Your task to perform on an android device: toggle show notifications on the lock screen Image 0: 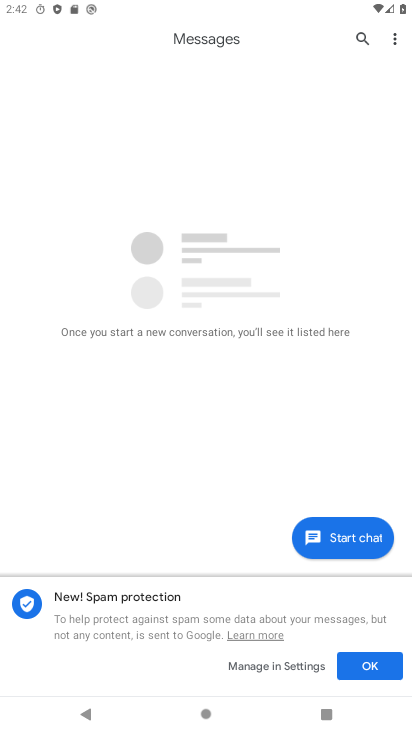
Step 0: press back button
Your task to perform on an android device: toggle show notifications on the lock screen Image 1: 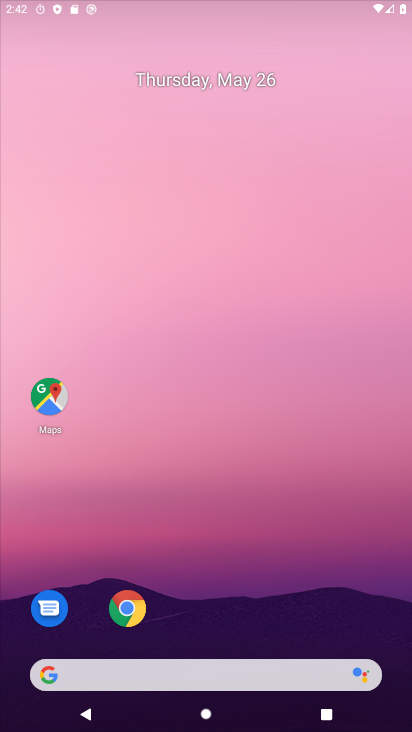
Step 1: drag from (246, 681) to (178, 16)
Your task to perform on an android device: toggle show notifications on the lock screen Image 2: 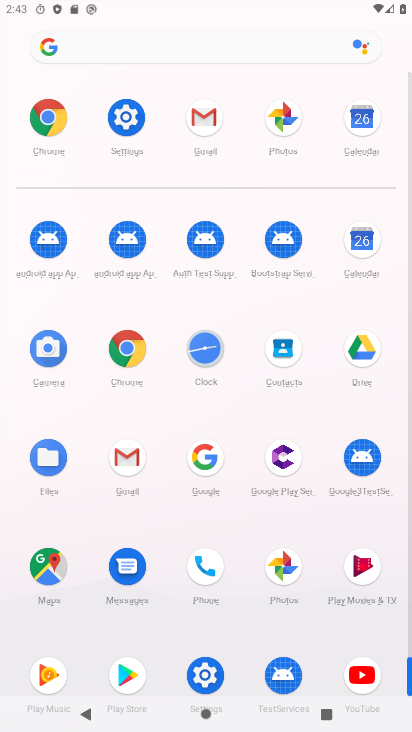
Step 2: click (206, 662)
Your task to perform on an android device: toggle show notifications on the lock screen Image 3: 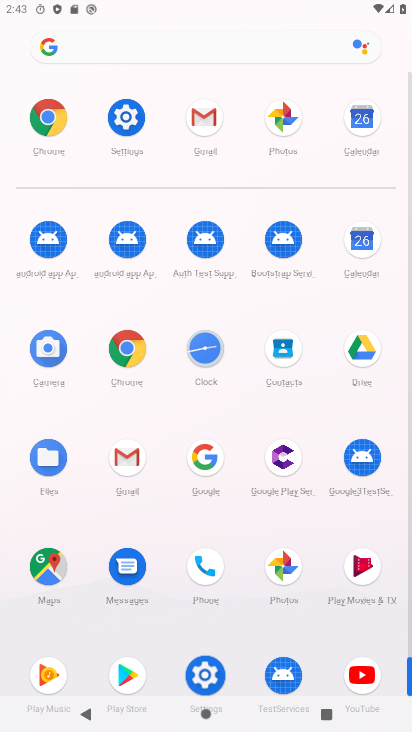
Step 3: click (203, 666)
Your task to perform on an android device: toggle show notifications on the lock screen Image 4: 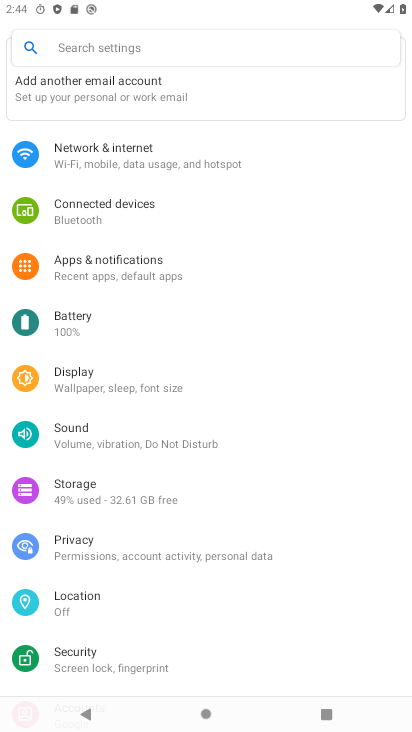
Step 4: click (99, 269)
Your task to perform on an android device: toggle show notifications on the lock screen Image 5: 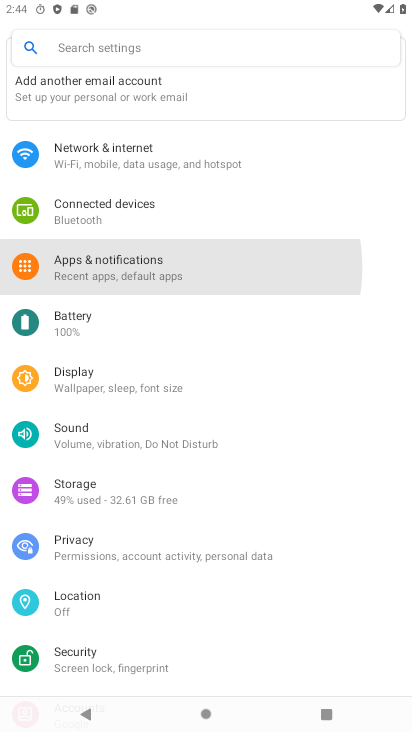
Step 5: click (100, 268)
Your task to perform on an android device: toggle show notifications on the lock screen Image 6: 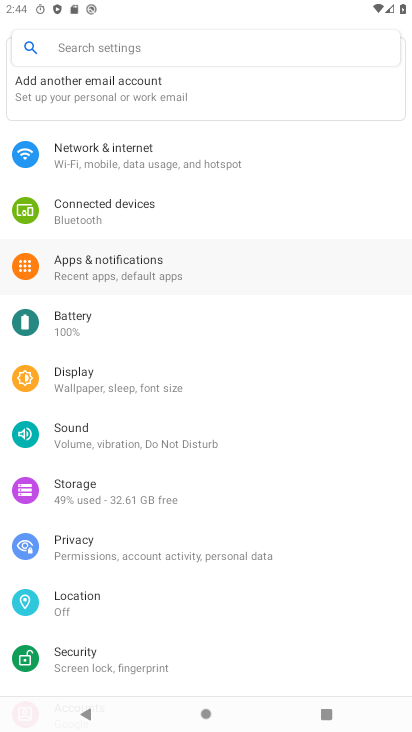
Step 6: click (100, 268)
Your task to perform on an android device: toggle show notifications on the lock screen Image 7: 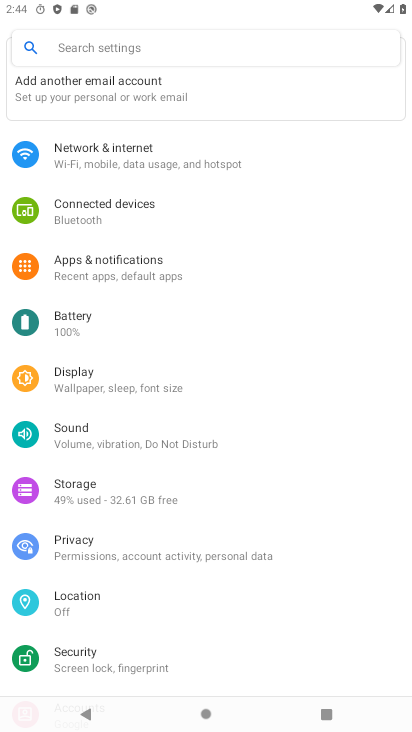
Step 7: click (100, 269)
Your task to perform on an android device: toggle show notifications on the lock screen Image 8: 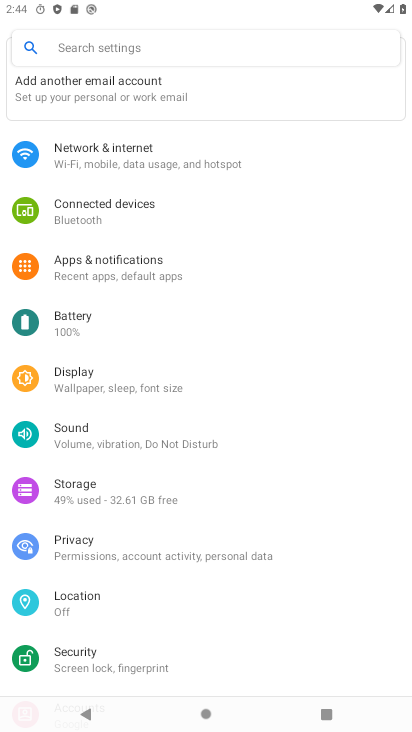
Step 8: click (104, 268)
Your task to perform on an android device: toggle show notifications on the lock screen Image 9: 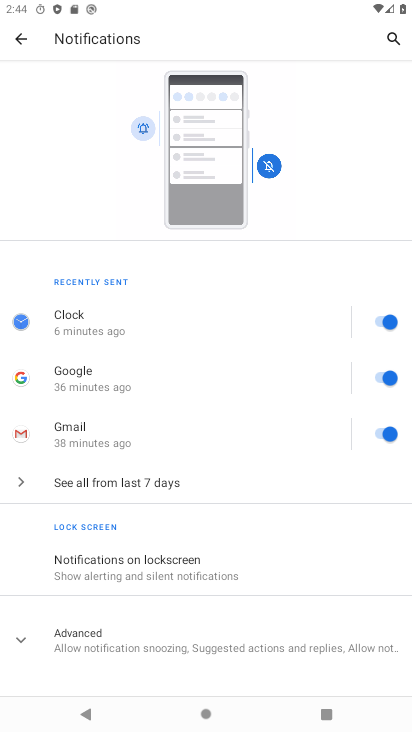
Step 9: click (123, 572)
Your task to perform on an android device: toggle show notifications on the lock screen Image 10: 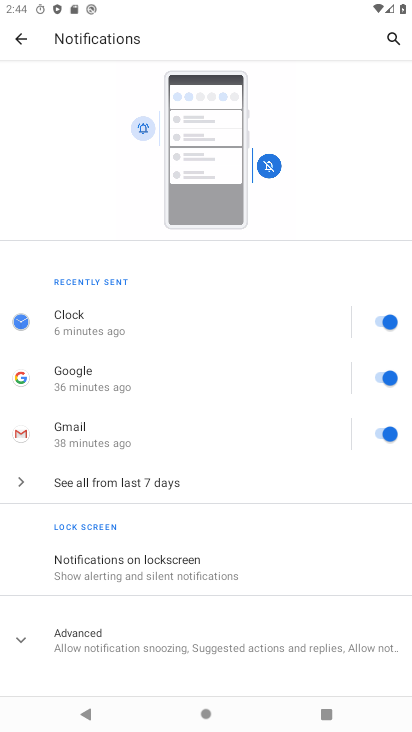
Step 10: click (124, 571)
Your task to perform on an android device: toggle show notifications on the lock screen Image 11: 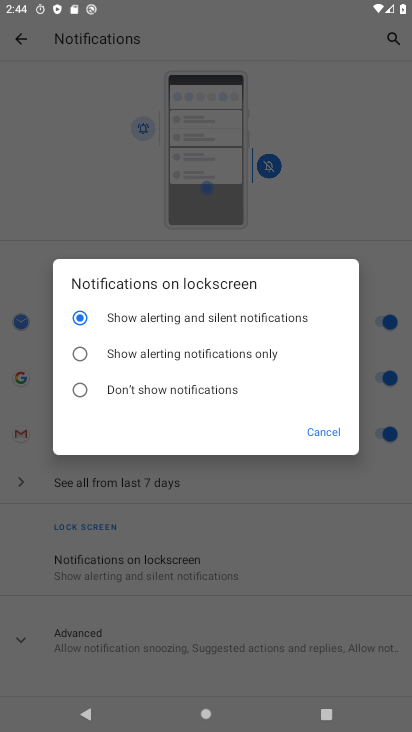
Step 11: click (123, 572)
Your task to perform on an android device: toggle show notifications on the lock screen Image 12: 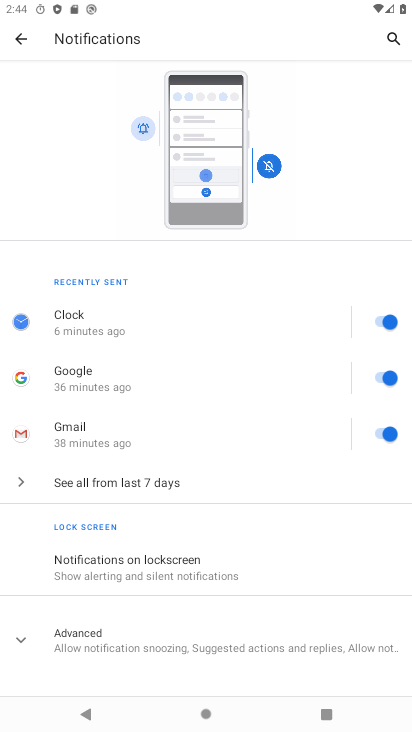
Step 12: click (126, 565)
Your task to perform on an android device: toggle show notifications on the lock screen Image 13: 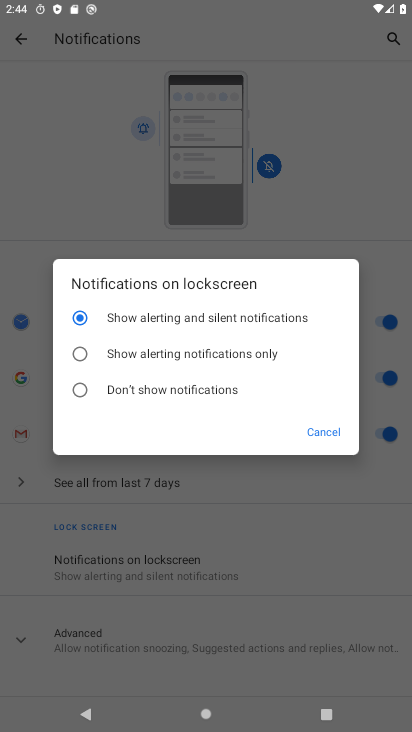
Step 13: click (319, 436)
Your task to perform on an android device: toggle show notifications on the lock screen Image 14: 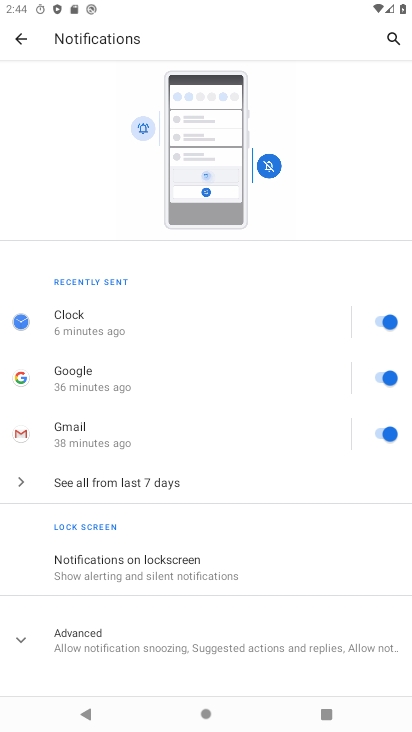
Step 14: task complete